Your task to perform on an android device: Open privacy settings Image 0: 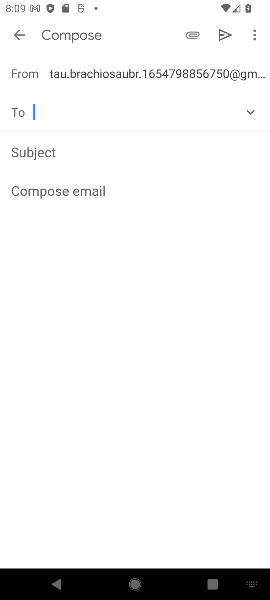
Step 0: press home button
Your task to perform on an android device: Open privacy settings Image 1: 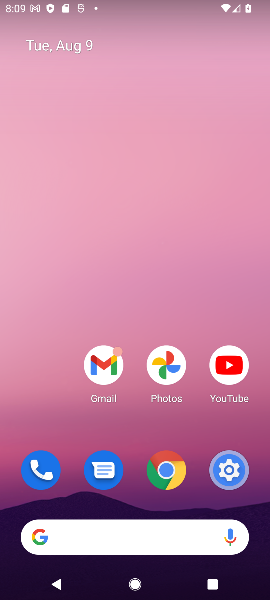
Step 1: click (232, 469)
Your task to perform on an android device: Open privacy settings Image 2: 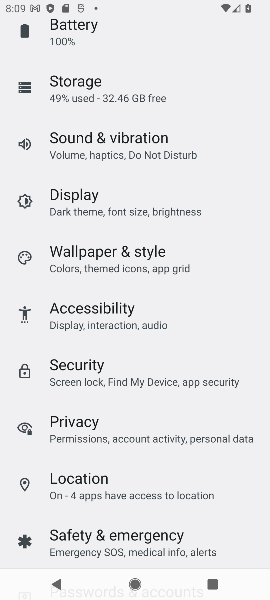
Step 2: click (104, 434)
Your task to perform on an android device: Open privacy settings Image 3: 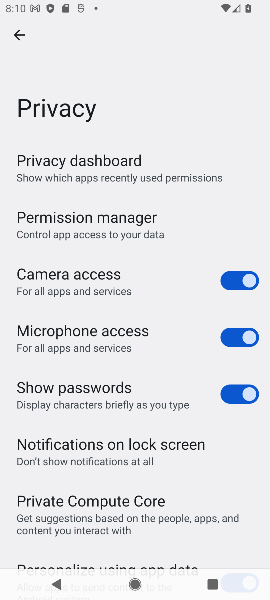
Step 3: task complete